Your task to perform on an android device: Is it going to rain tomorrow? Image 0: 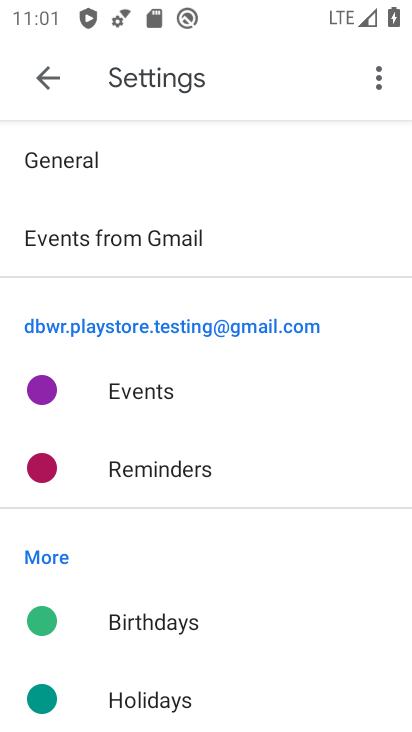
Step 0: press home button
Your task to perform on an android device: Is it going to rain tomorrow? Image 1: 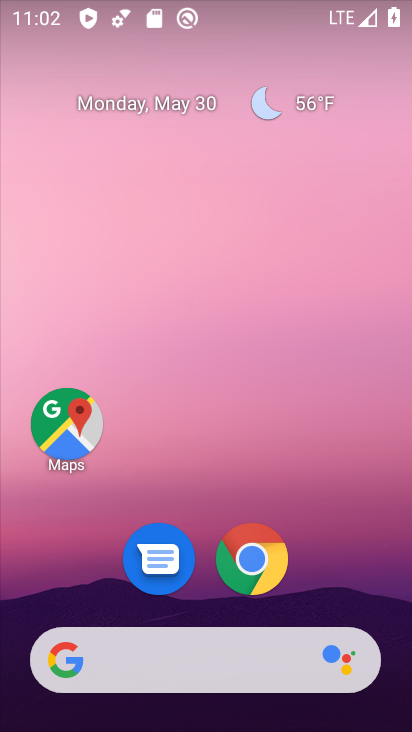
Step 1: drag from (371, 563) to (298, 145)
Your task to perform on an android device: Is it going to rain tomorrow? Image 2: 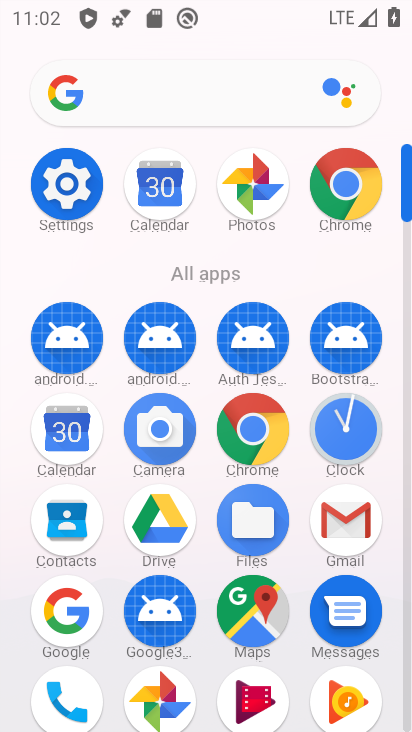
Step 2: click (360, 207)
Your task to perform on an android device: Is it going to rain tomorrow? Image 3: 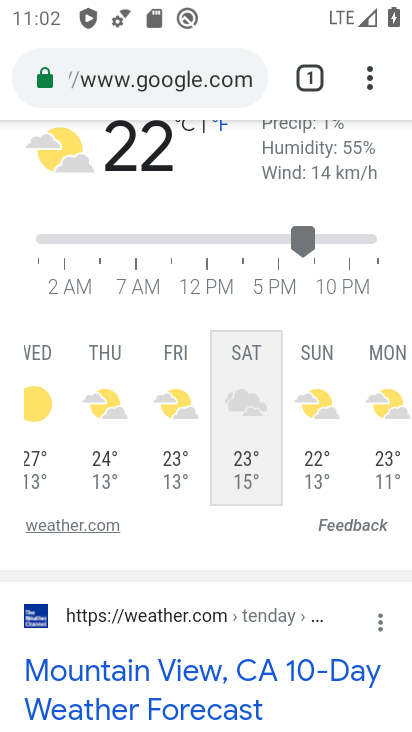
Step 3: click (246, 87)
Your task to perform on an android device: Is it going to rain tomorrow? Image 4: 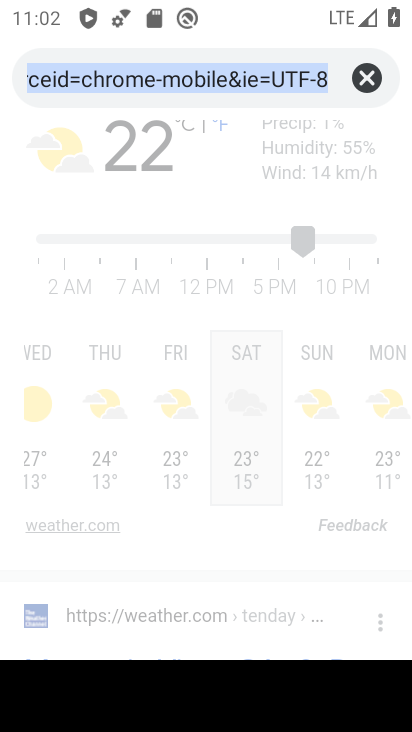
Step 4: type "Is it going to rain tomorrow?"
Your task to perform on an android device: Is it going to rain tomorrow? Image 5: 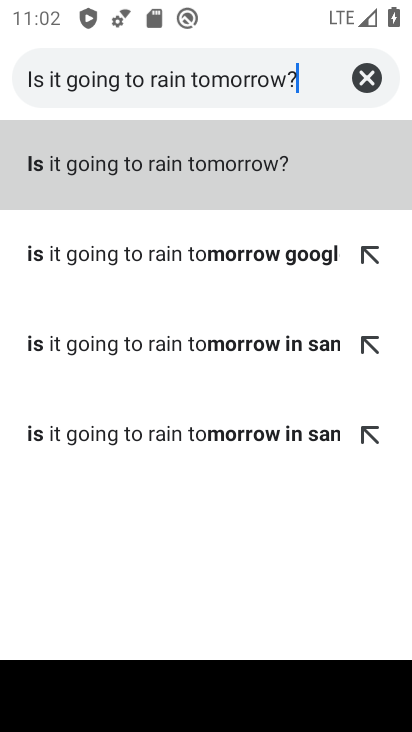
Step 5: click (238, 164)
Your task to perform on an android device: Is it going to rain tomorrow? Image 6: 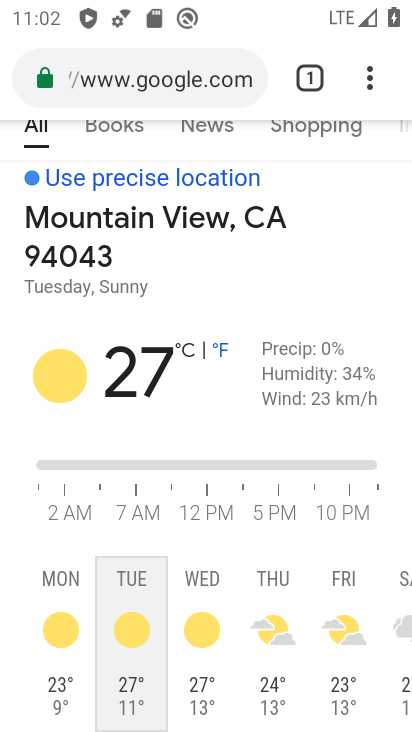
Step 6: click (213, 581)
Your task to perform on an android device: Is it going to rain tomorrow? Image 7: 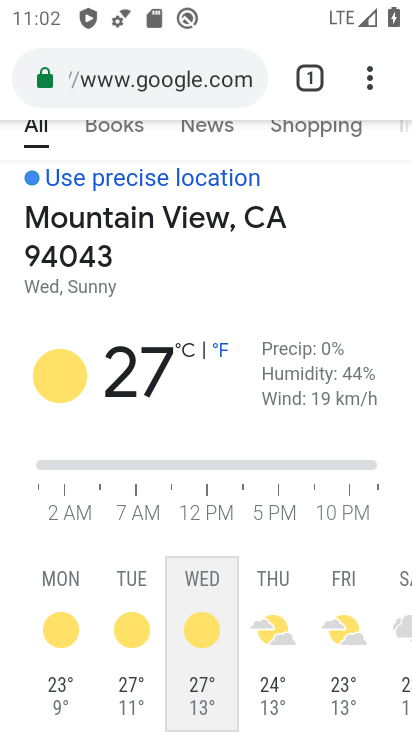
Step 7: task complete